Your task to perform on an android device: change notifications settings Image 0: 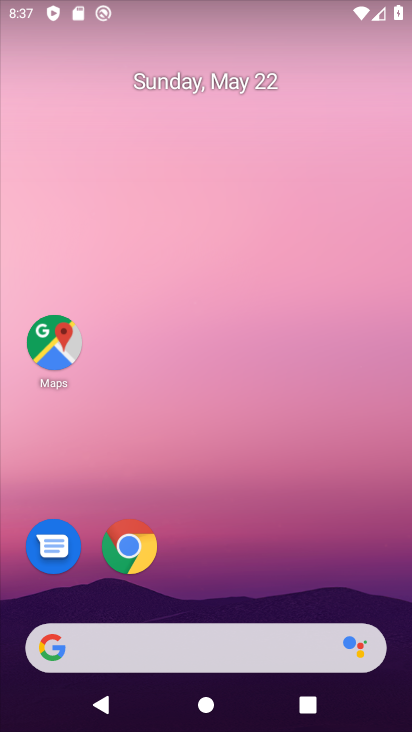
Step 0: drag from (366, 502) to (335, 127)
Your task to perform on an android device: change notifications settings Image 1: 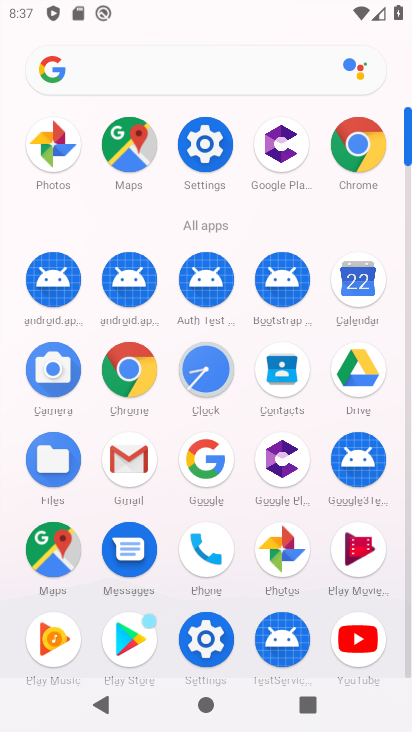
Step 1: click (205, 157)
Your task to perform on an android device: change notifications settings Image 2: 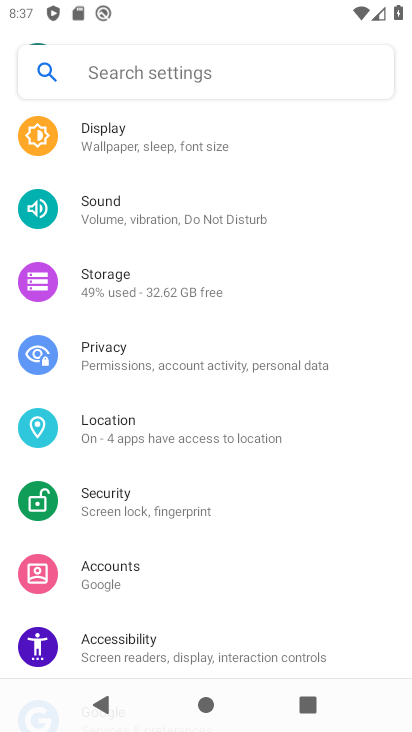
Step 2: drag from (362, 377) to (363, 468)
Your task to perform on an android device: change notifications settings Image 3: 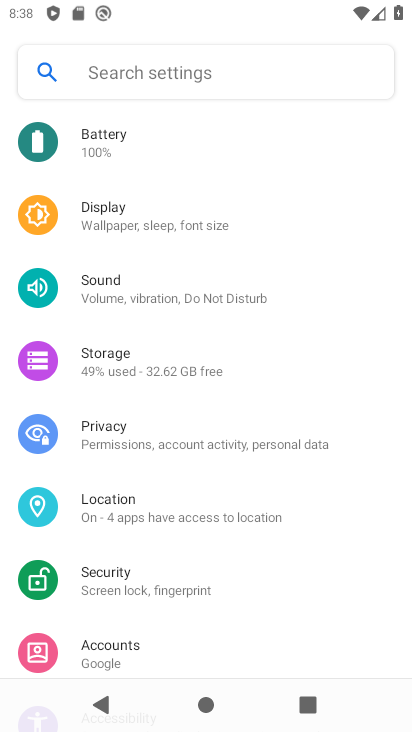
Step 3: drag from (357, 337) to (358, 432)
Your task to perform on an android device: change notifications settings Image 4: 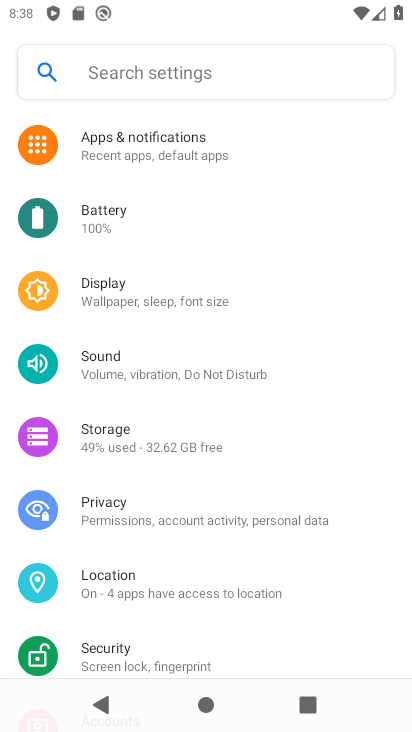
Step 4: drag from (354, 326) to (352, 424)
Your task to perform on an android device: change notifications settings Image 5: 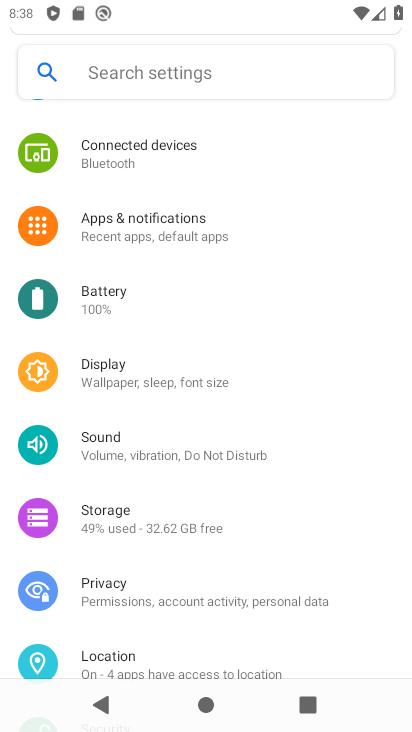
Step 5: drag from (340, 314) to (333, 422)
Your task to perform on an android device: change notifications settings Image 6: 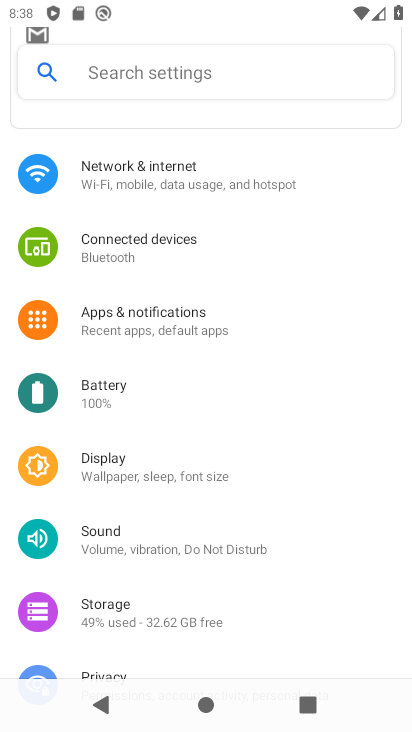
Step 6: drag from (331, 298) to (340, 402)
Your task to perform on an android device: change notifications settings Image 7: 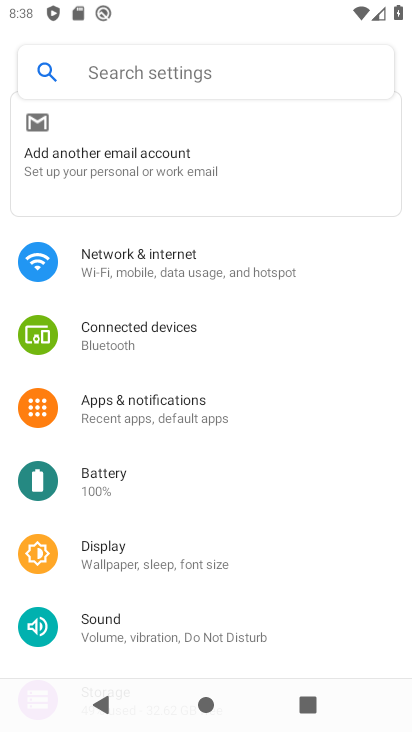
Step 7: click (185, 410)
Your task to perform on an android device: change notifications settings Image 8: 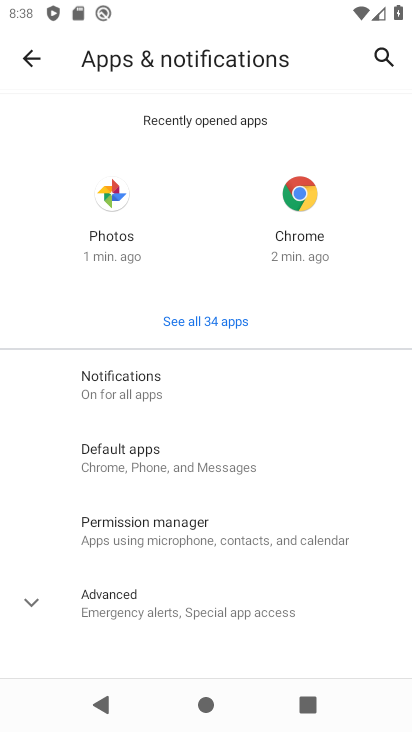
Step 8: drag from (326, 474) to (340, 350)
Your task to perform on an android device: change notifications settings Image 9: 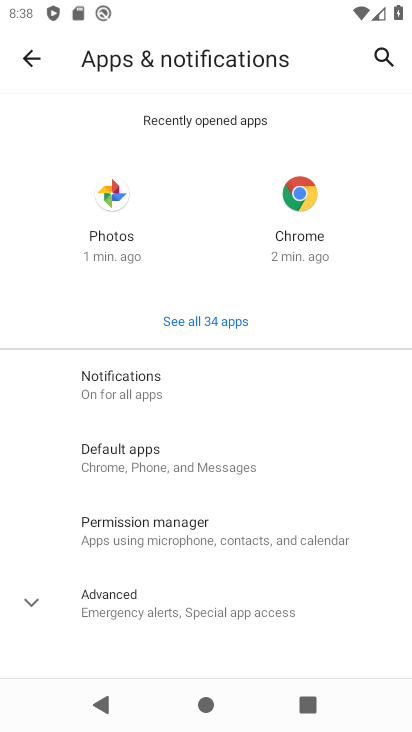
Step 9: click (140, 387)
Your task to perform on an android device: change notifications settings Image 10: 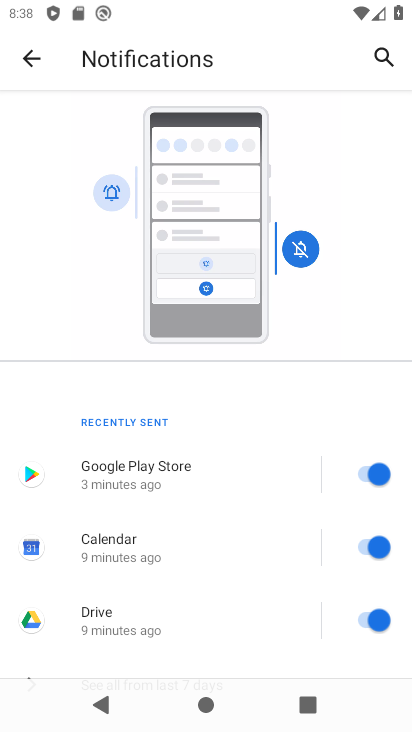
Step 10: drag from (228, 582) to (234, 379)
Your task to perform on an android device: change notifications settings Image 11: 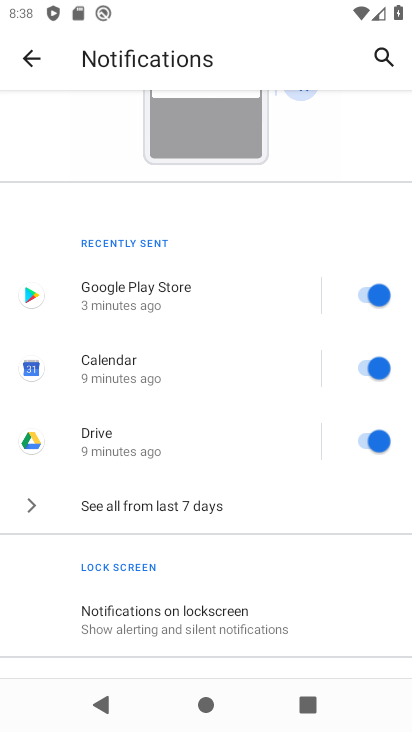
Step 11: drag from (263, 562) to (274, 317)
Your task to perform on an android device: change notifications settings Image 12: 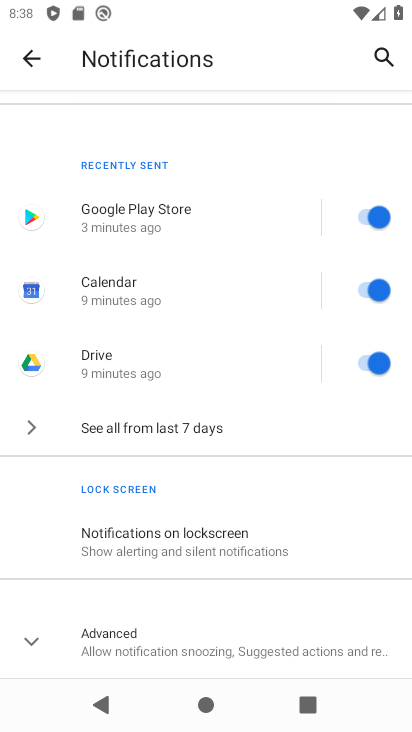
Step 12: click (372, 363)
Your task to perform on an android device: change notifications settings Image 13: 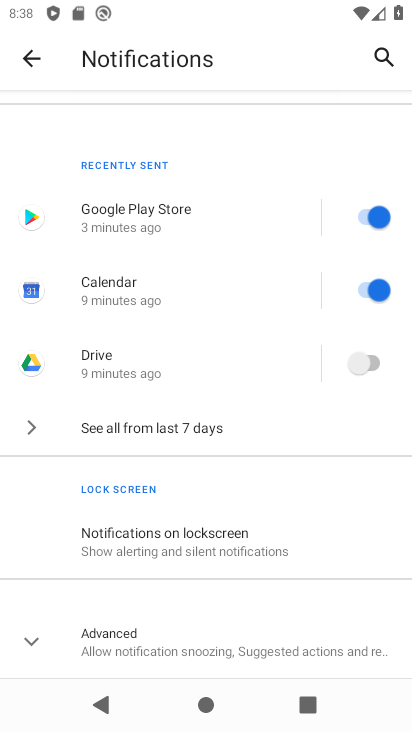
Step 13: click (367, 292)
Your task to perform on an android device: change notifications settings Image 14: 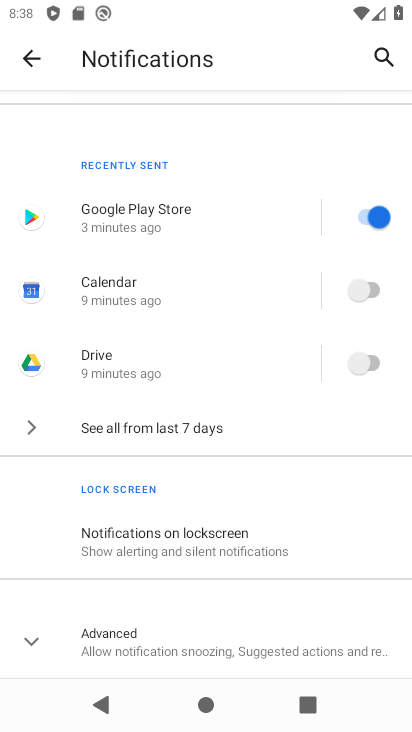
Step 14: click (367, 226)
Your task to perform on an android device: change notifications settings Image 15: 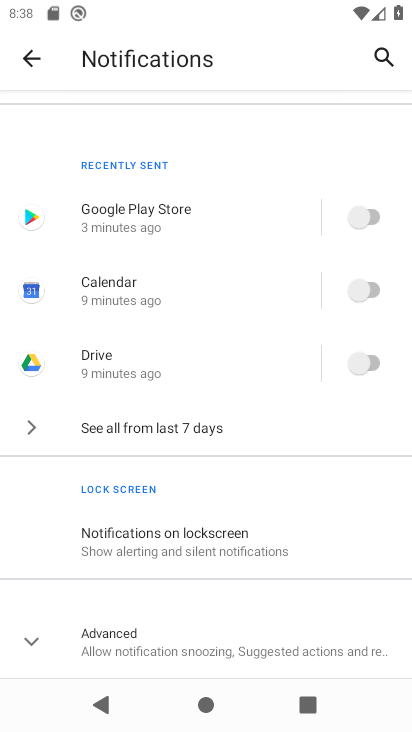
Step 15: task complete